Your task to perform on an android device: Open Youtube and go to "Your channel" Image 0: 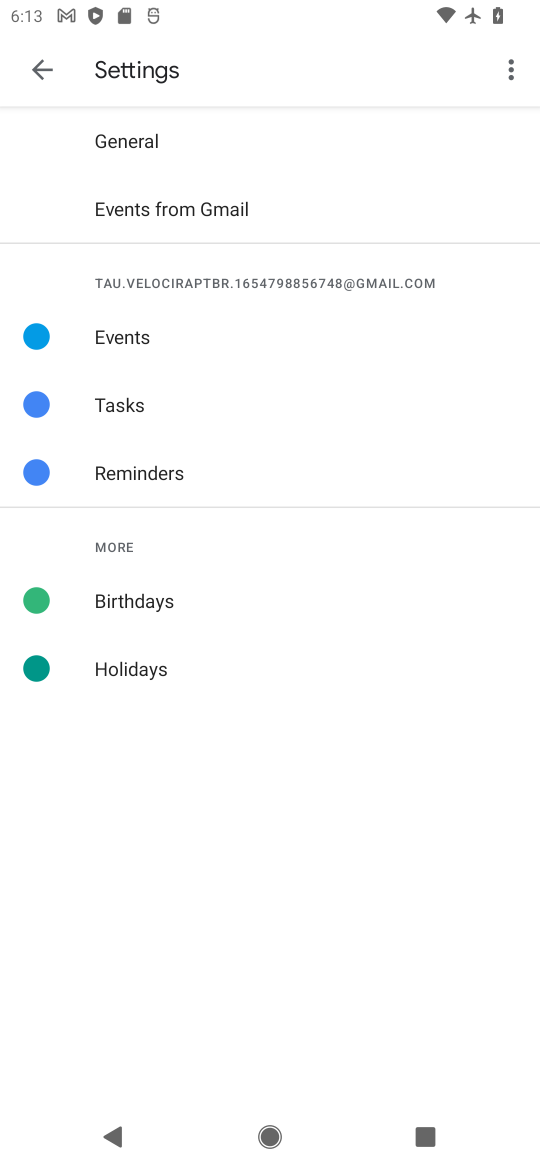
Step 0: press home button
Your task to perform on an android device: Open Youtube and go to "Your channel" Image 1: 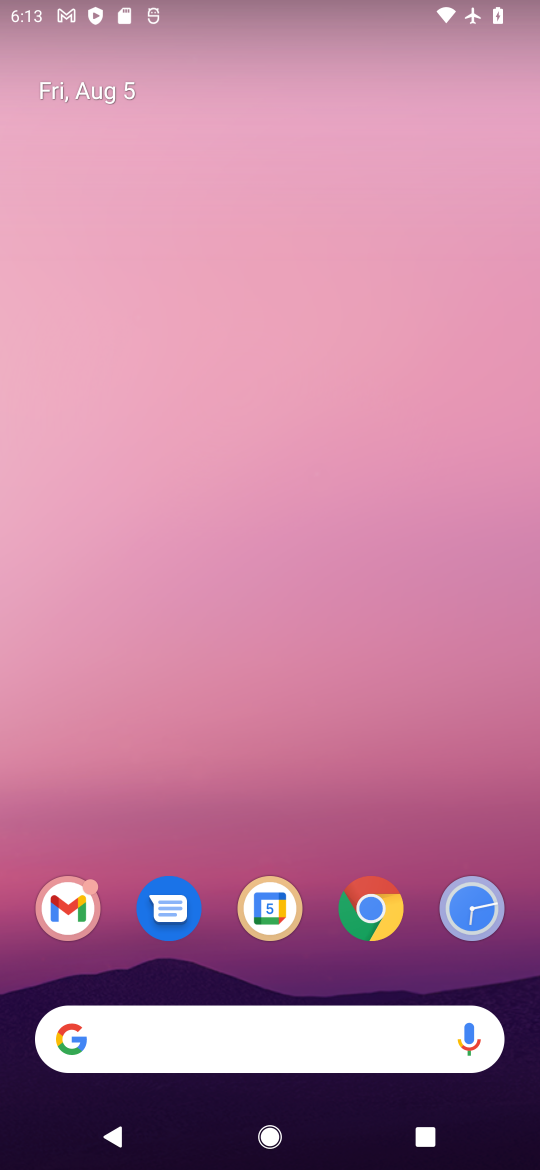
Step 1: drag from (265, 906) to (265, 197)
Your task to perform on an android device: Open Youtube and go to "Your channel" Image 2: 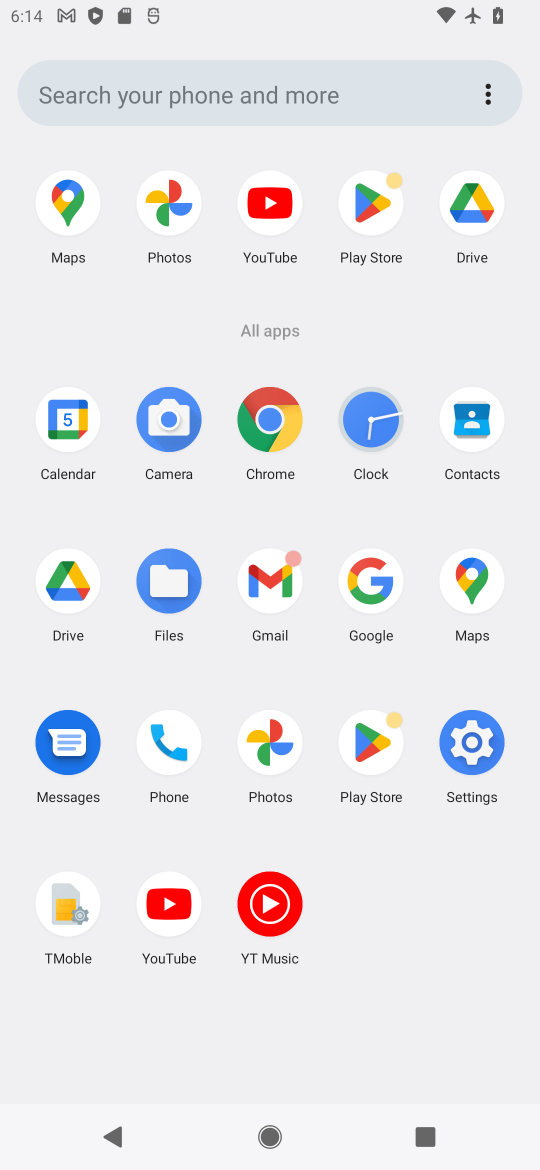
Step 2: click (164, 896)
Your task to perform on an android device: Open Youtube and go to "Your channel" Image 3: 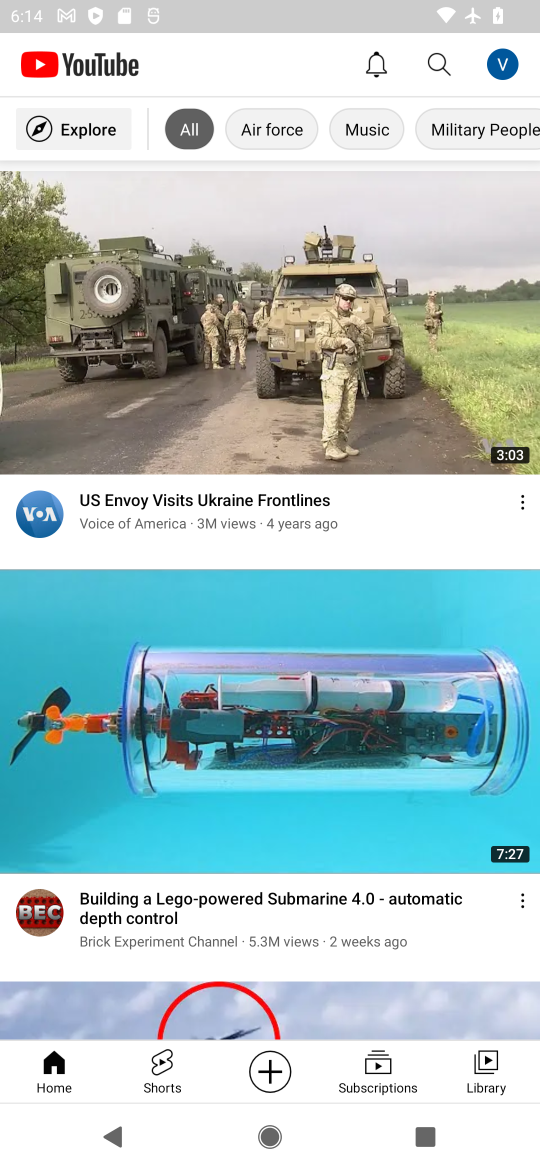
Step 3: click (500, 66)
Your task to perform on an android device: Open Youtube and go to "Your channel" Image 4: 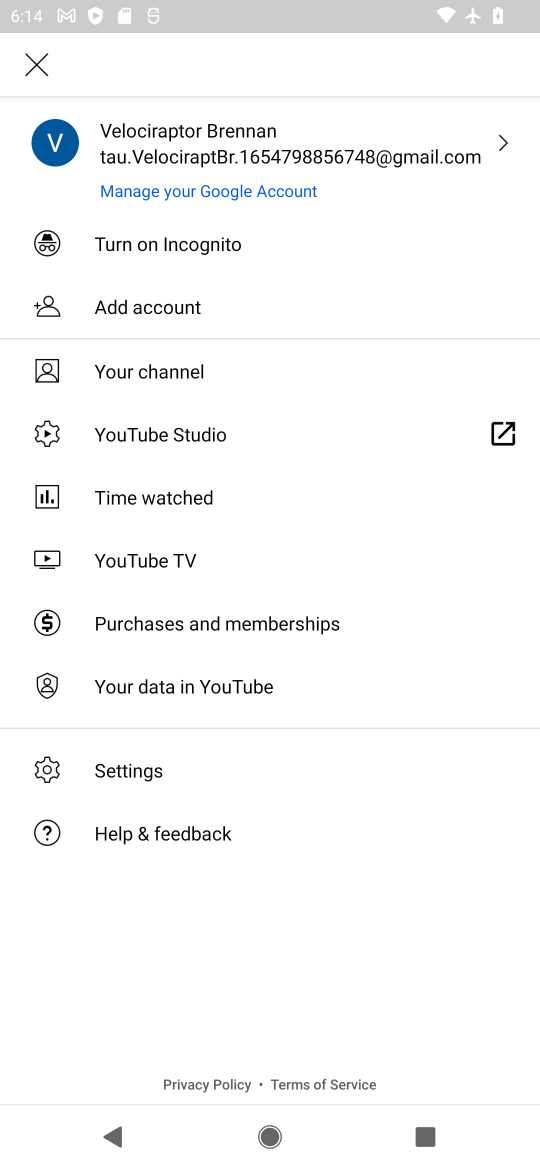
Step 4: click (170, 368)
Your task to perform on an android device: Open Youtube and go to "Your channel" Image 5: 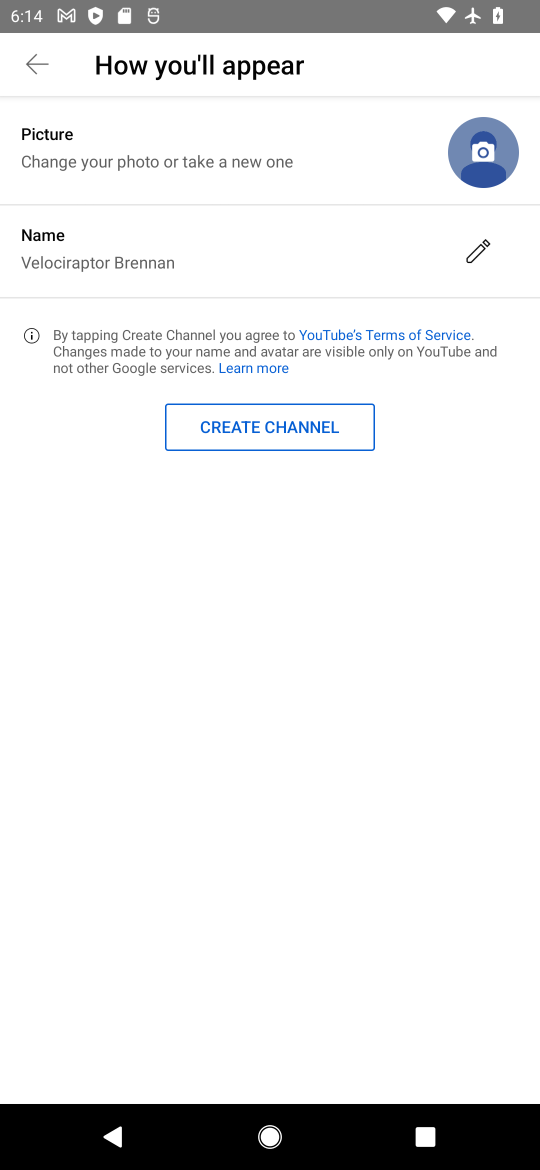
Step 5: task complete